Your task to perform on an android device: Open Google Image 0: 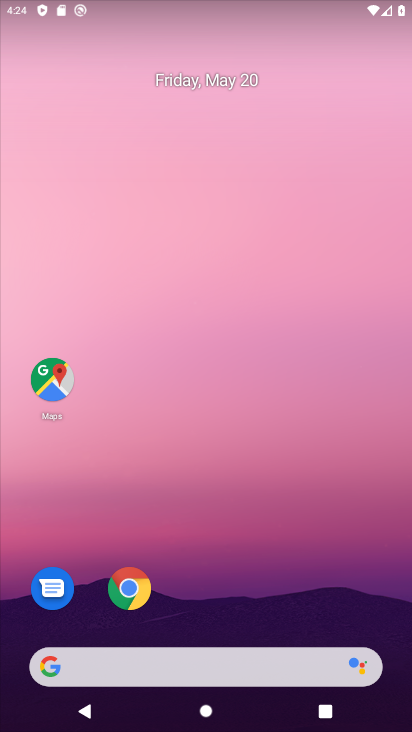
Step 0: drag from (280, 584) to (291, 72)
Your task to perform on an android device: Open Google Image 1: 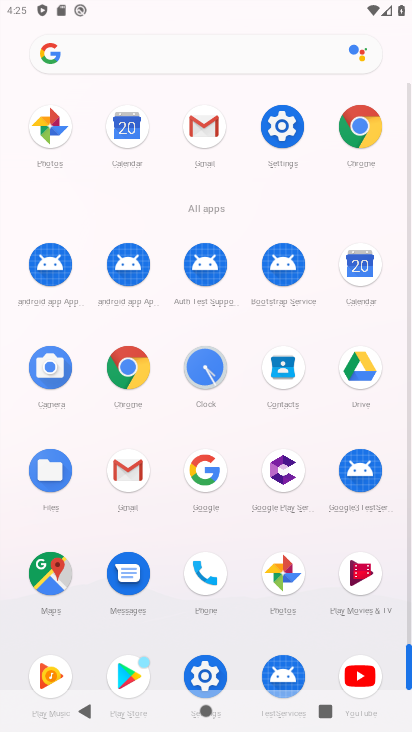
Step 1: click (201, 478)
Your task to perform on an android device: Open Google Image 2: 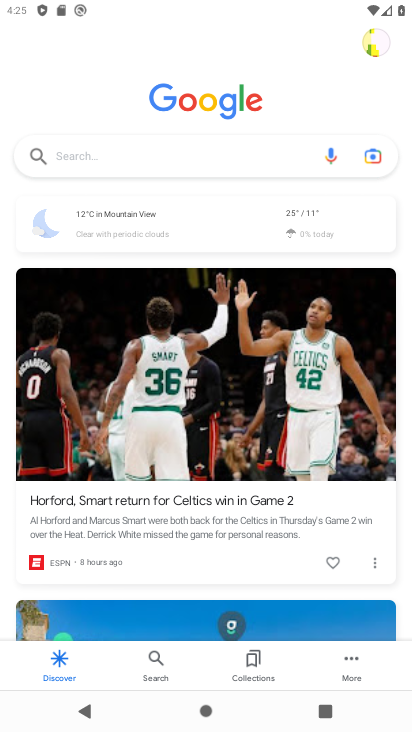
Step 2: task complete